Your task to perform on an android device: see sites visited before in the chrome app Image 0: 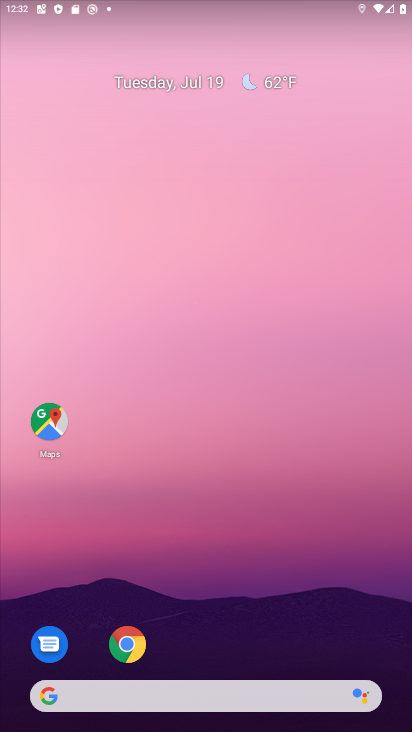
Step 0: click (133, 642)
Your task to perform on an android device: see sites visited before in the chrome app Image 1: 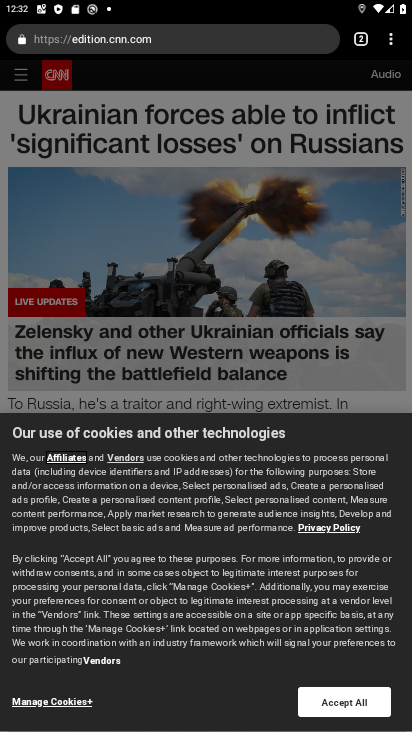
Step 1: click (396, 40)
Your task to perform on an android device: see sites visited before in the chrome app Image 2: 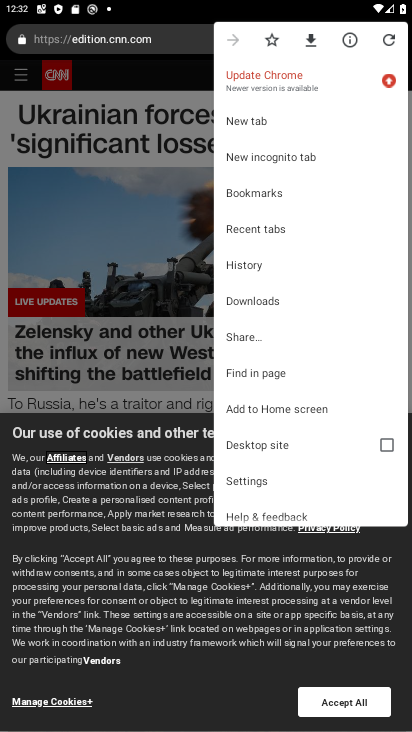
Step 2: click (234, 254)
Your task to perform on an android device: see sites visited before in the chrome app Image 3: 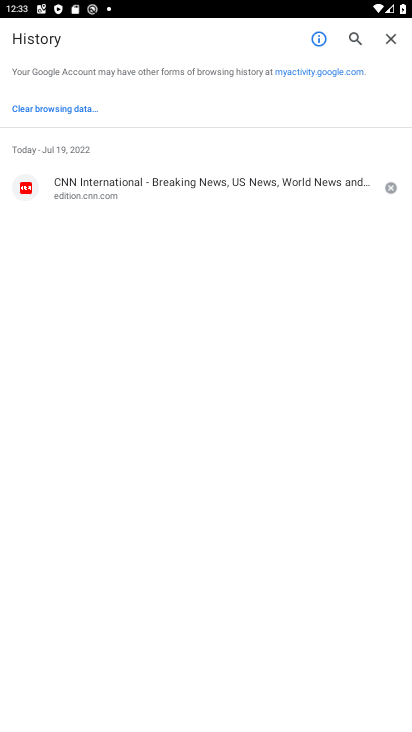
Step 3: task complete